Your task to perform on an android device: Open accessibility settings Image 0: 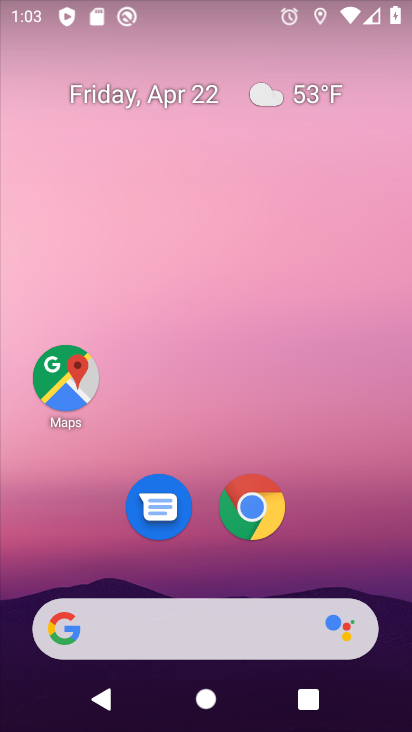
Step 0: drag from (354, 507) to (273, 33)
Your task to perform on an android device: Open accessibility settings Image 1: 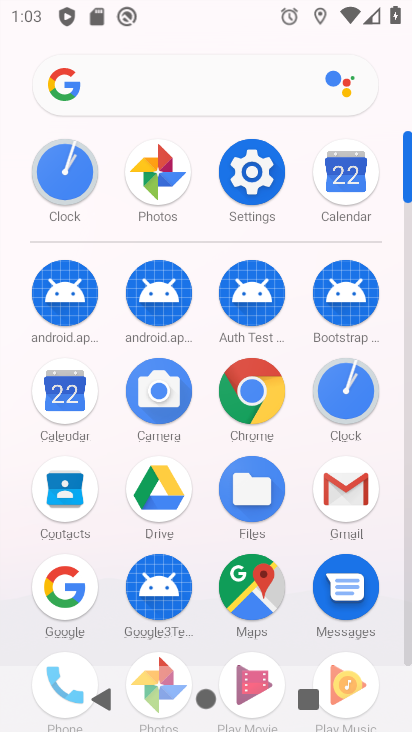
Step 1: click (263, 177)
Your task to perform on an android device: Open accessibility settings Image 2: 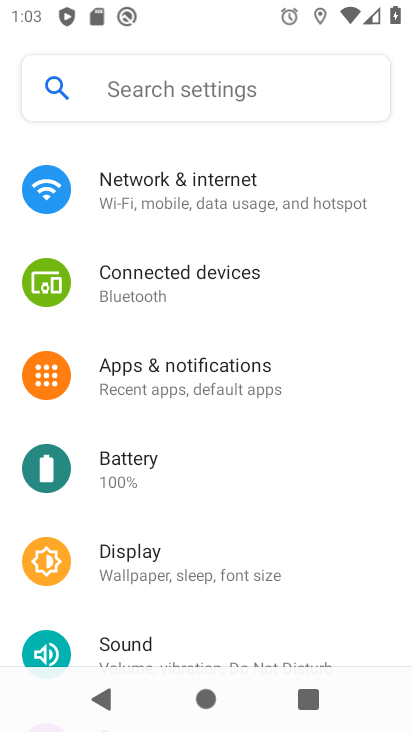
Step 2: drag from (300, 554) to (275, 216)
Your task to perform on an android device: Open accessibility settings Image 3: 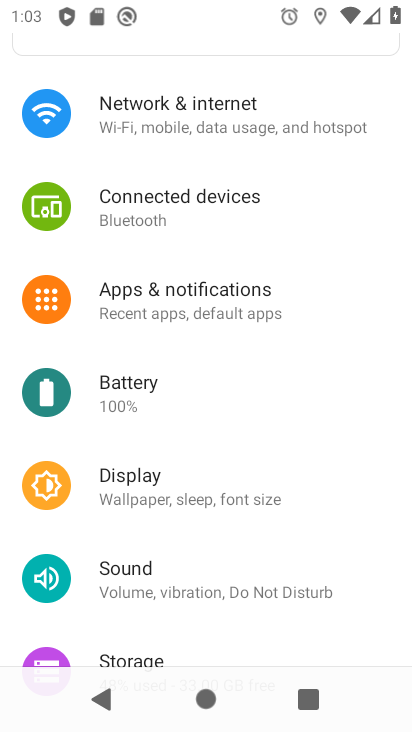
Step 3: drag from (213, 590) to (230, 166)
Your task to perform on an android device: Open accessibility settings Image 4: 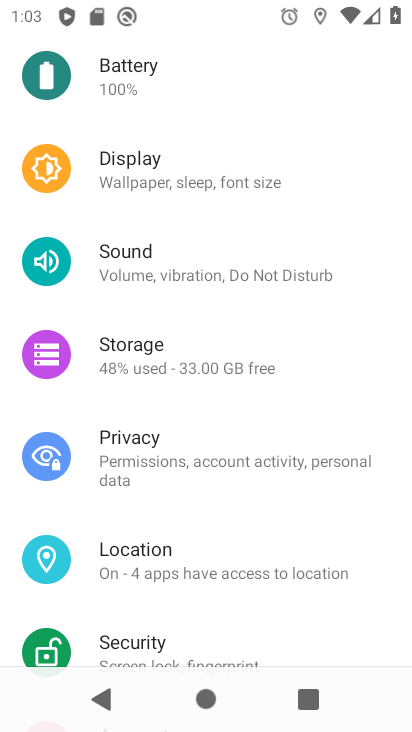
Step 4: drag from (242, 576) to (226, 157)
Your task to perform on an android device: Open accessibility settings Image 5: 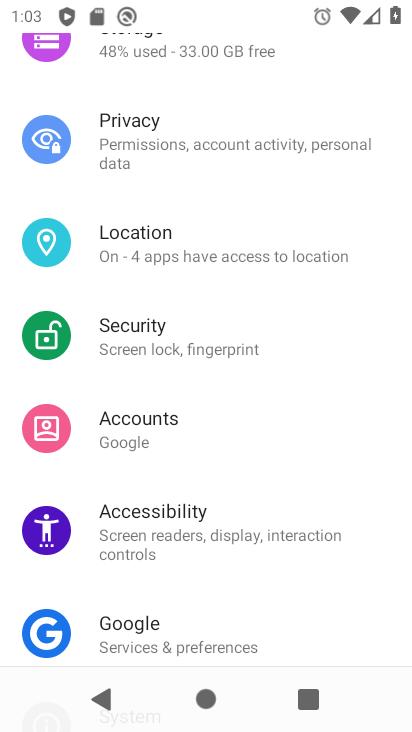
Step 5: click (161, 511)
Your task to perform on an android device: Open accessibility settings Image 6: 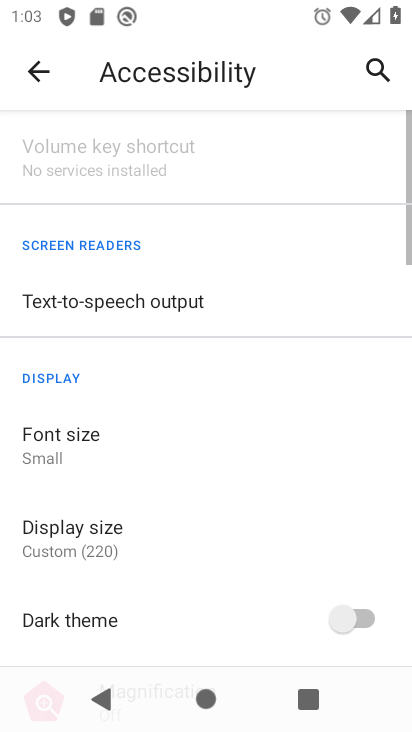
Step 6: task complete